Your task to perform on an android device: toggle show notifications on the lock screen Image 0: 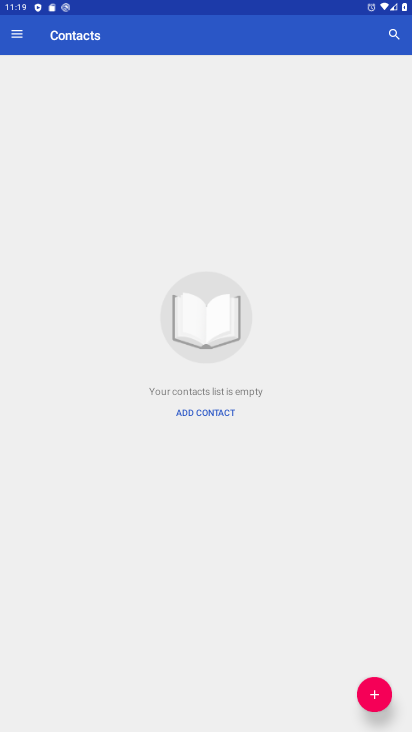
Step 0: press home button
Your task to perform on an android device: toggle show notifications on the lock screen Image 1: 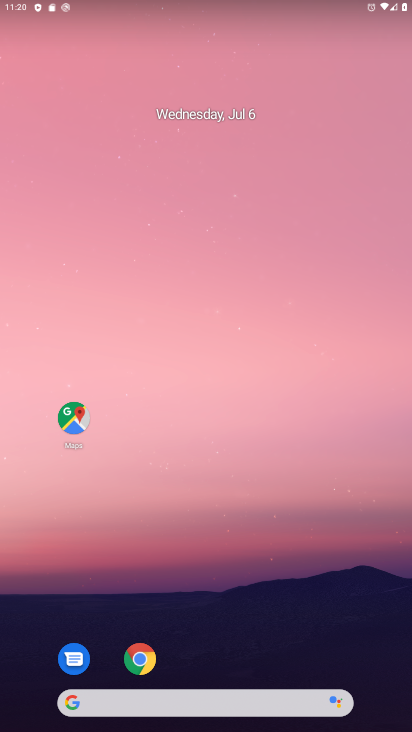
Step 1: drag from (181, 676) to (310, 91)
Your task to perform on an android device: toggle show notifications on the lock screen Image 2: 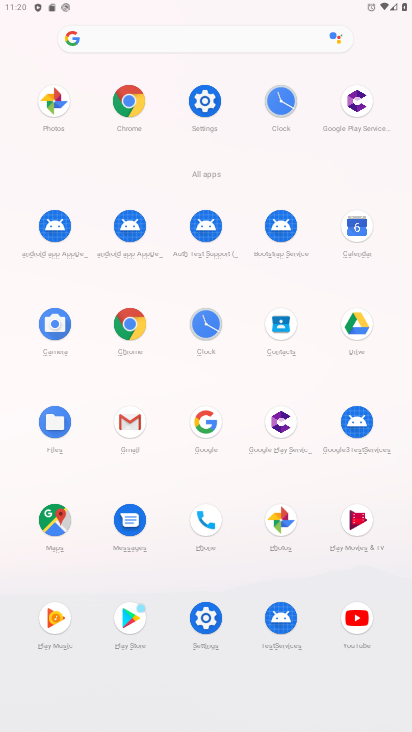
Step 2: click (206, 87)
Your task to perform on an android device: toggle show notifications on the lock screen Image 3: 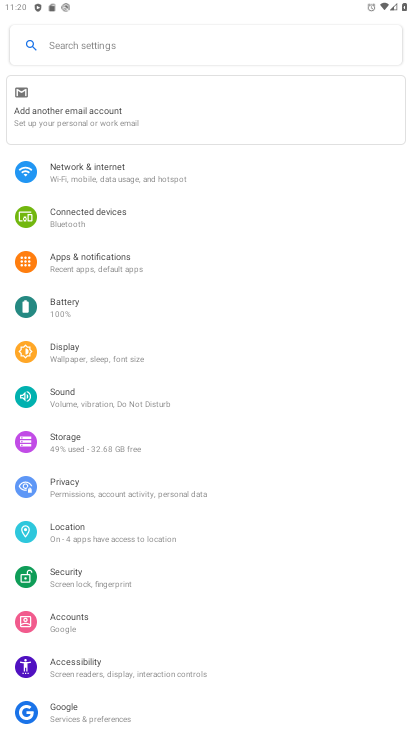
Step 3: click (124, 263)
Your task to perform on an android device: toggle show notifications on the lock screen Image 4: 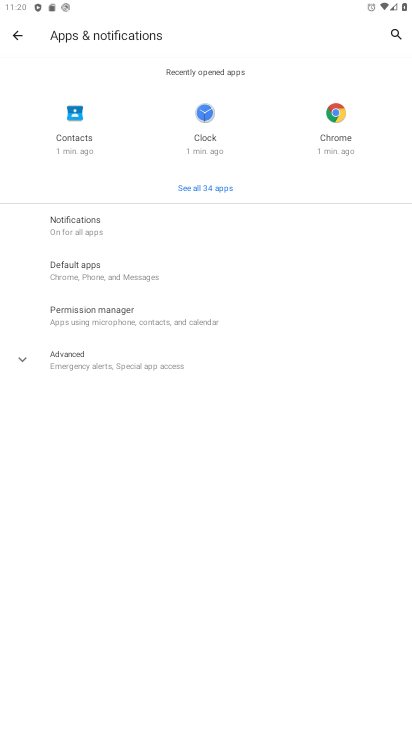
Step 4: click (149, 227)
Your task to perform on an android device: toggle show notifications on the lock screen Image 5: 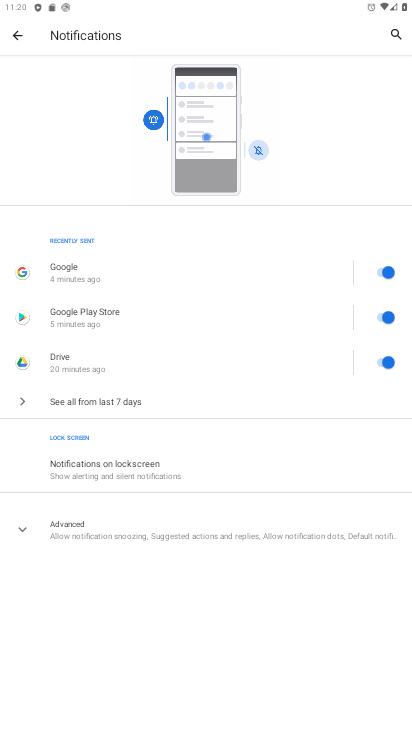
Step 5: click (209, 527)
Your task to perform on an android device: toggle show notifications on the lock screen Image 6: 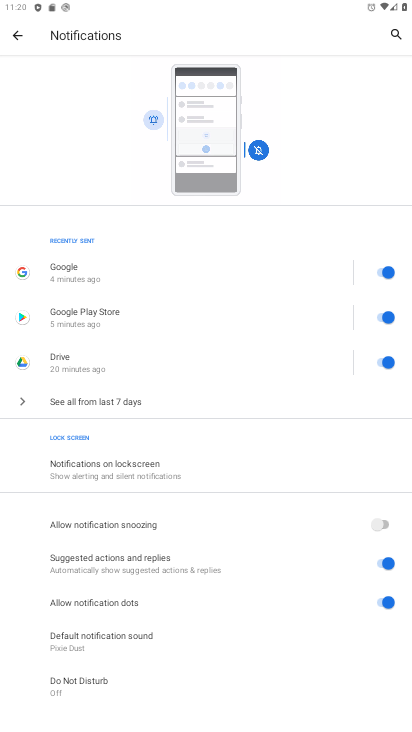
Step 6: drag from (182, 655) to (257, 146)
Your task to perform on an android device: toggle show notifications on the lock screen Image 7: 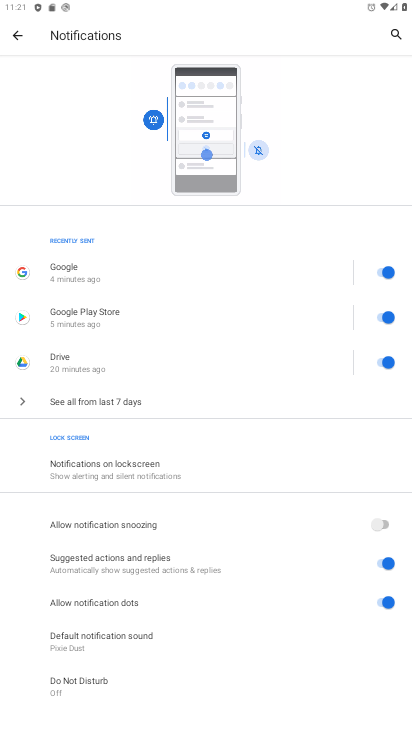
Step 7: click (171, 475)
Your task to perform on an android device: toggle show notifications on the lock screen Image 8: 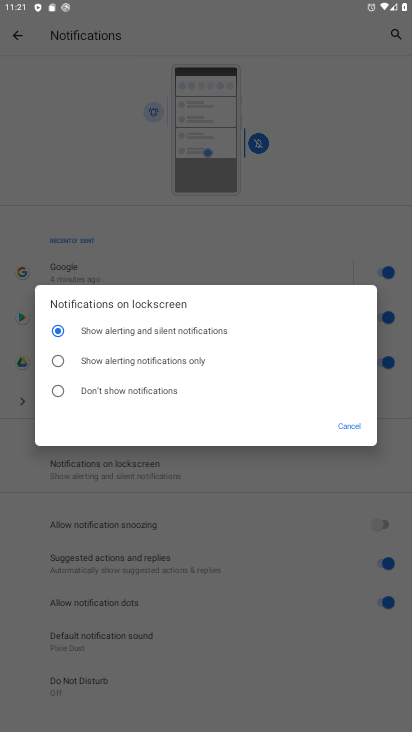
Step 8: click (164, 367)
Your task to perform on an android device: toggle show notifications on the lock screen Image 9: 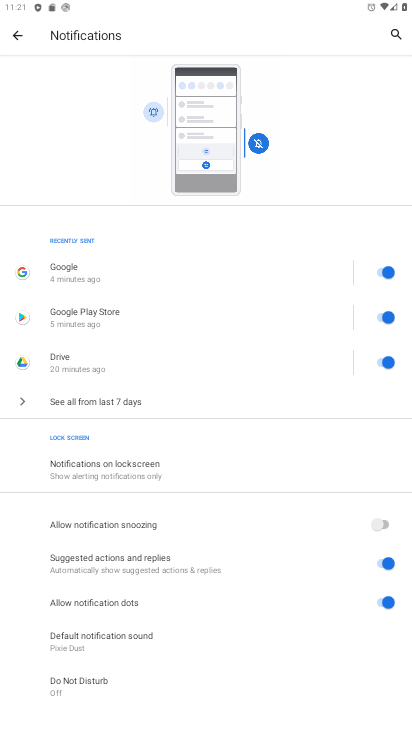
Step 9: task complete